Your task to perform on an android device: open chrome and create a bookmark for the current page Image 0: 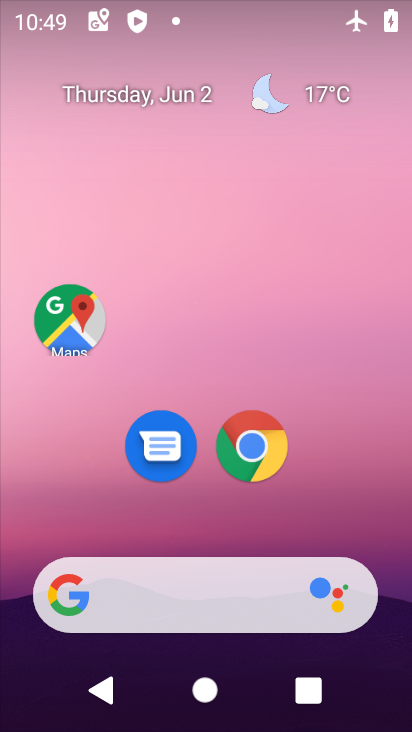
Step 0: drag from (367, 513) to (378, 157)
Your task to perform on an android device: open chrome and create a bookmark for the current page Image 1: 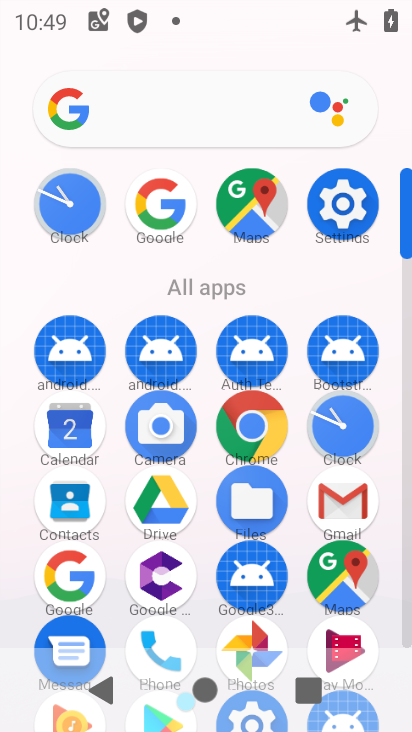
Step 1: click (258, 430)
Your task to perform on an android device: open chrome and create a bookmark for the current page Image 2: 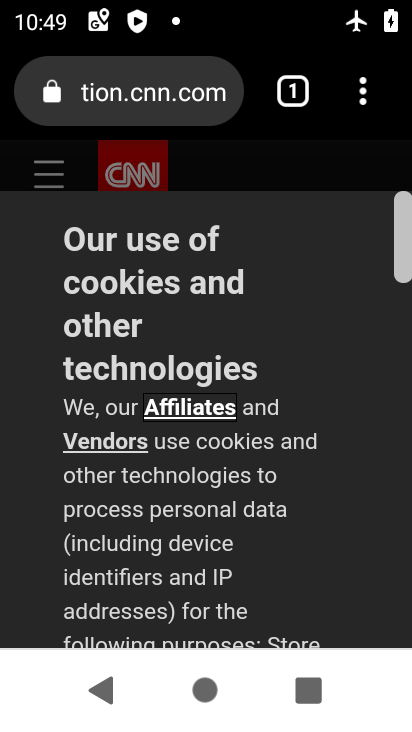
Step 2: click (364, 108)
Your task to perform on an android device: open chrome and create a bookmark for the current page Image 3: 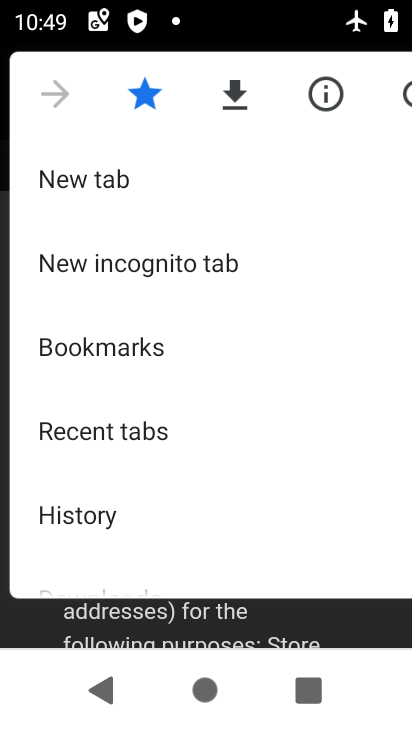
Step 3: task complete